Your task to perform on an android device: Go to wifi settings Image 0: 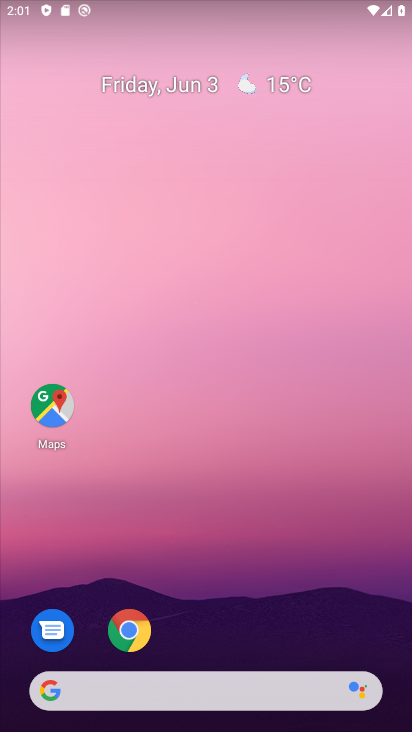
Step 0: press home button
Your task to perform on an android device: Go to wifi settings Image 1: 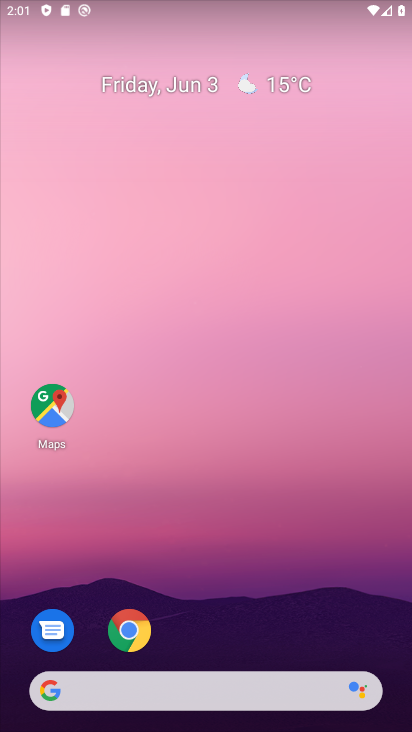
Step 1: drag from (301, 586) to (328, 4)
Your task to perform on an android device: Go to wifi settings Image 2: 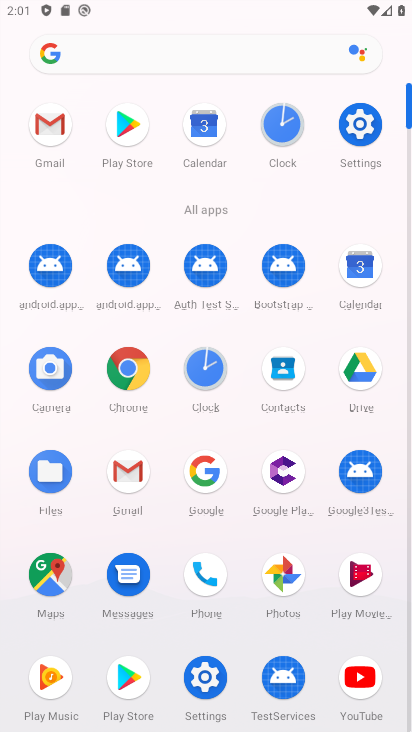
Step 2: drag from (335, 32) to (116, 653)
Your task to perform on an android device: Go to wifi settings Image 3: 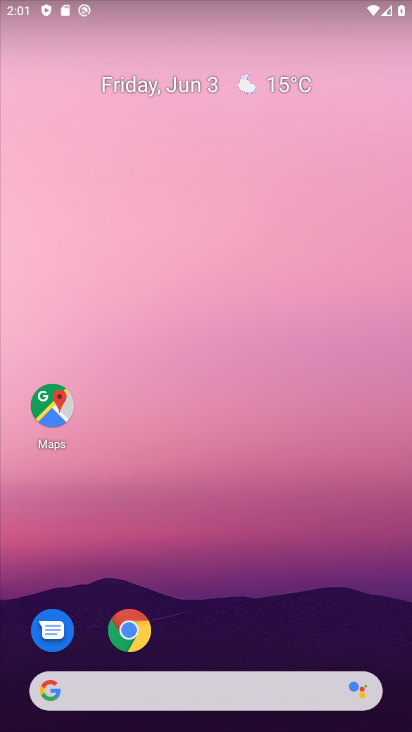
Step 3: drag from (381, 5) to (226, 411)
Your task to perform on an android device: Go to wifi settings Image 4: 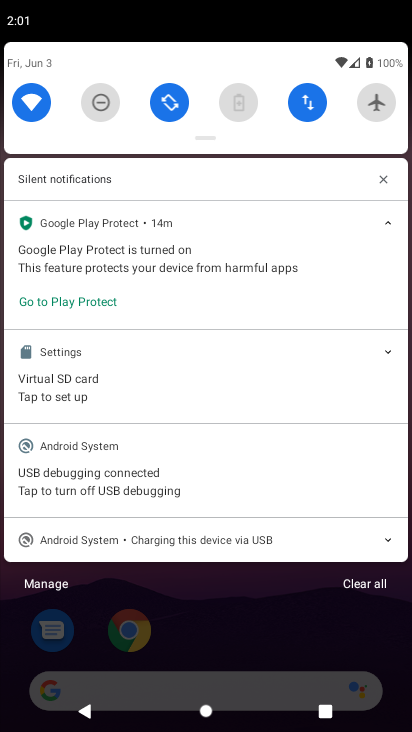
Step 4: click (43, 107)
Your task to perform on an android device: Go to wifi settings Image 5: 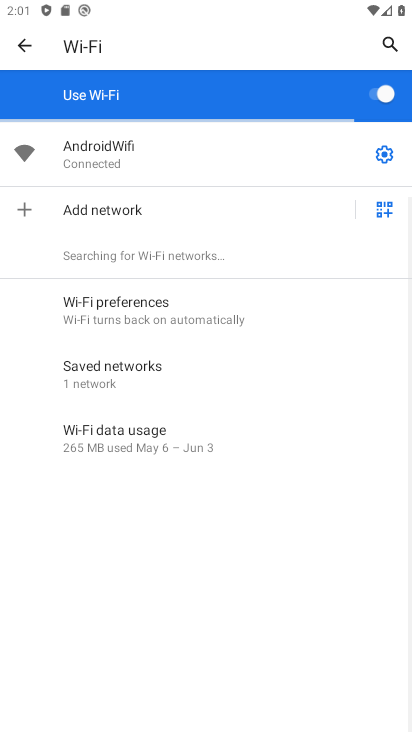
Step 5: task complete